Your task to perform on an android device: delete location history Image 0: 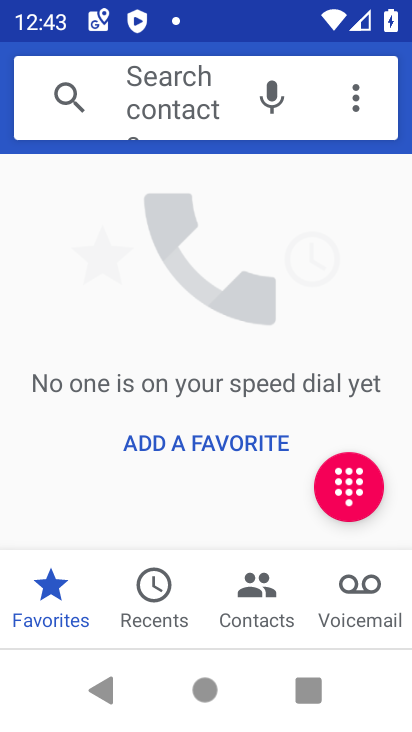
Step 0: press back button
Your task to perform on an android device: delete location history Image 1: 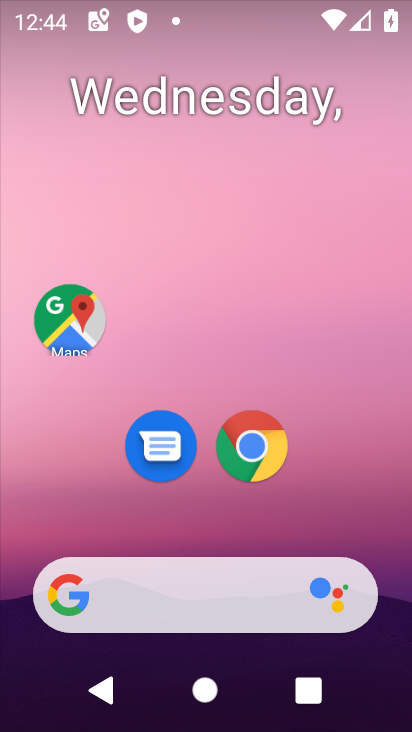
Step 1: drag from (373, 641) to (268, 208)
Your task to perform on an android device: delete location history Image 2: 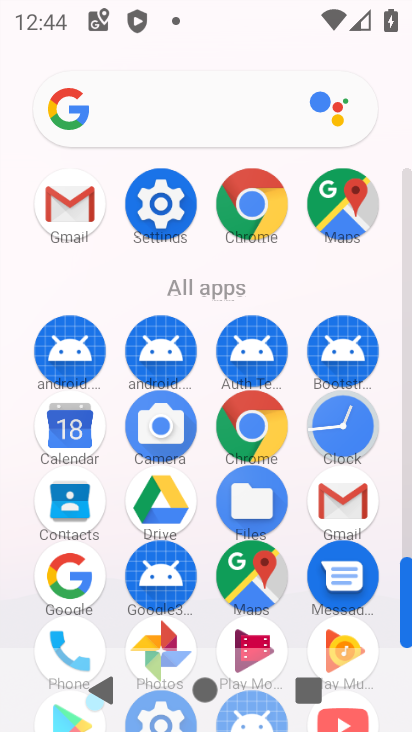
Step 2: click (259, 577)
Your task to perform on an android device: delete location history Image 3: 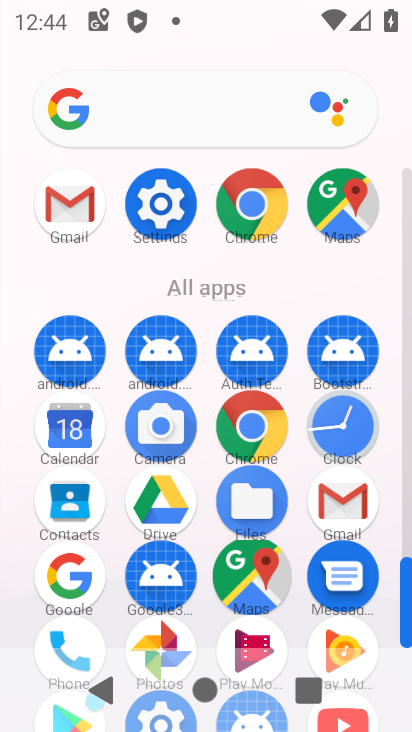
Step 3: click (257, 576)
Your task to perform on an android device: delete location history Image 4: 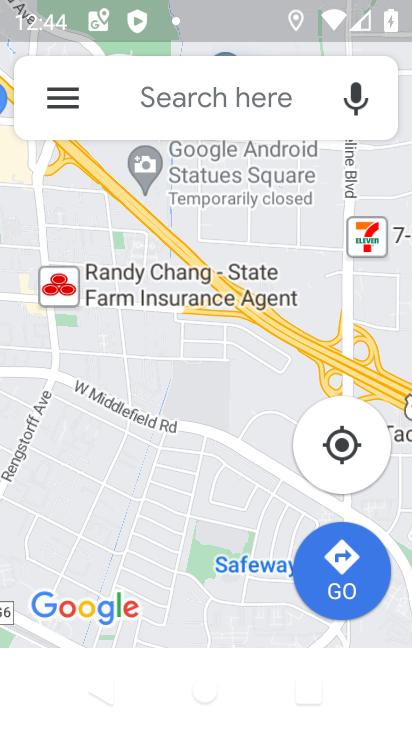
Step 4: click (147, 94)
Your task to perform on an android device: delete location history Image 5: 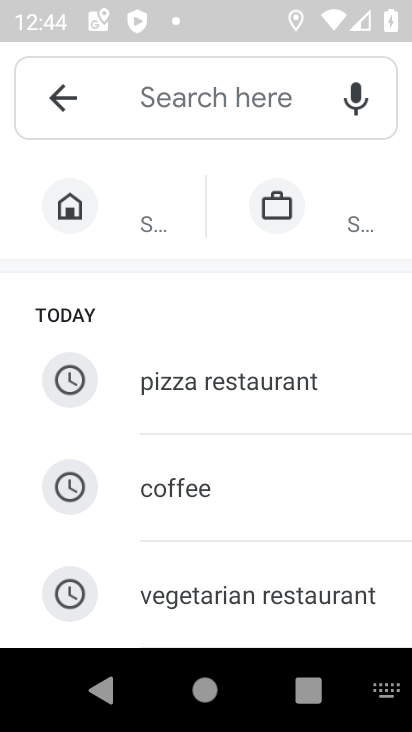
Step 5: click (70, 97)
Your task to perform on an android device: delete location history Image 6: 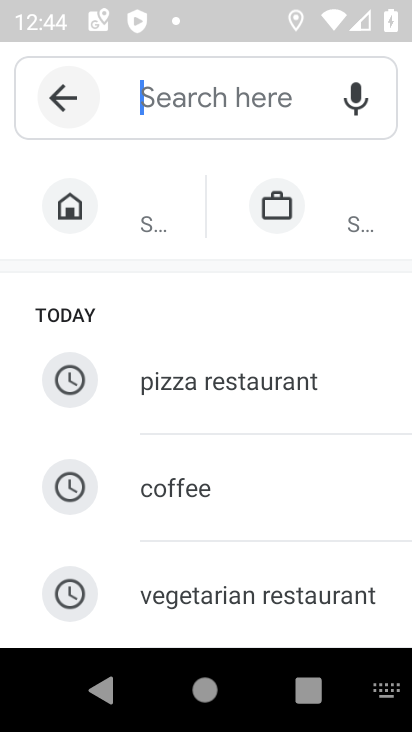
Step 6: click (71, 98)
Your task to perform on an android device: delete location history Image 7: 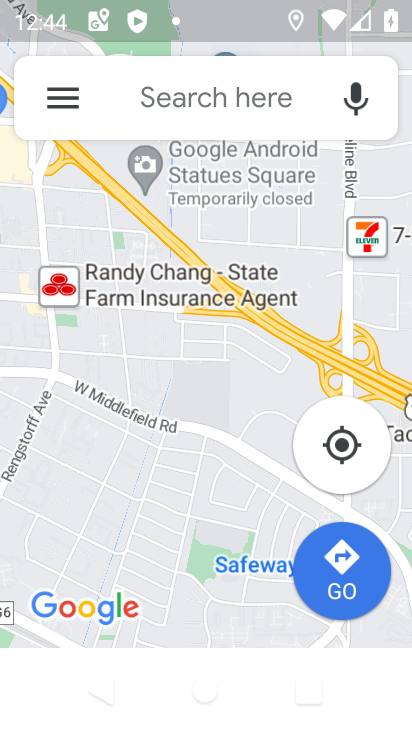
Step 7: click (71, 98)
Your task to perform on an android device: delete location history Image 8: 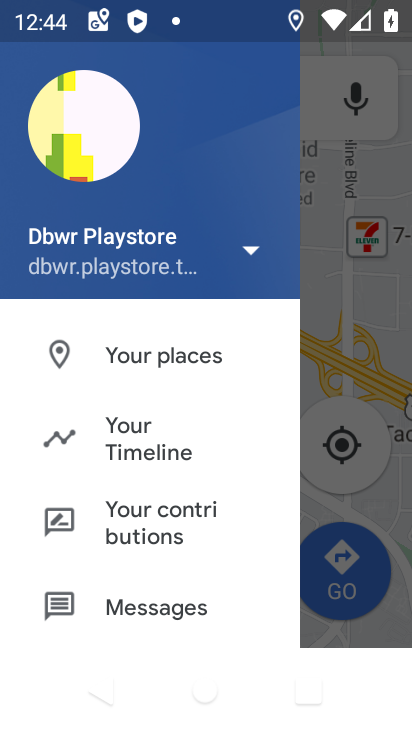
Step 8: click (133, 454)
Your task to perform on an android device: delete location history Image 9: 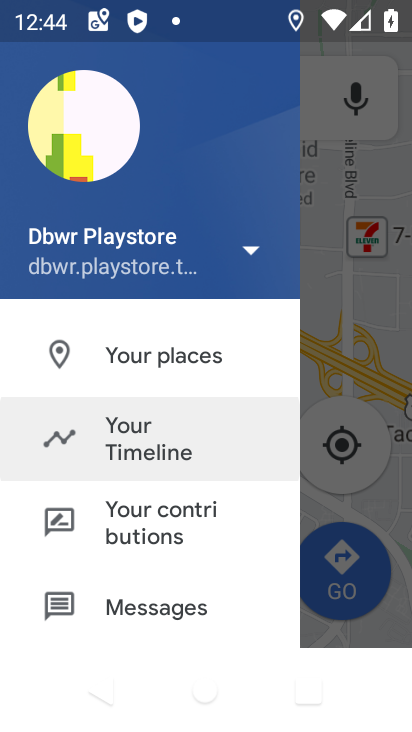
Step 9: click (131, 447)
Your task to perform on an android device: delete location history Image 10: 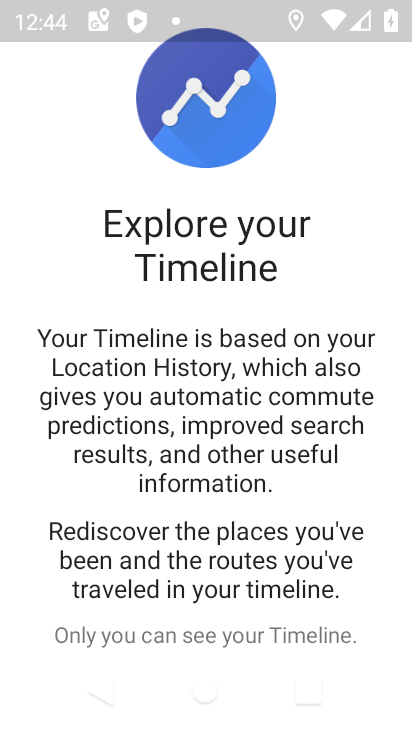
Step 10: drag from (233, 476) to (215, 190)
Your task to perform on an android device: delete location history Image 11: 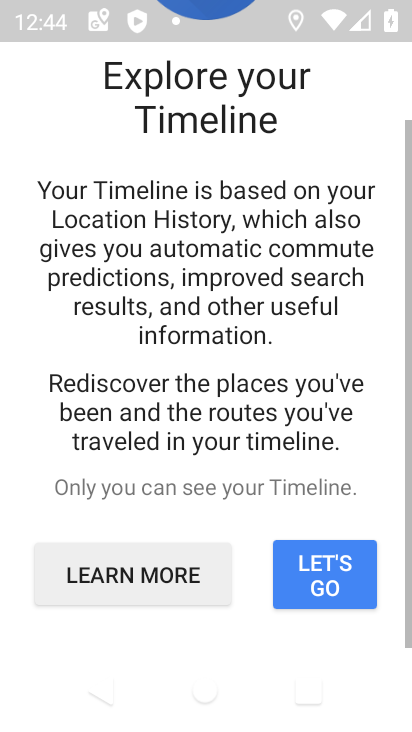
Step 11: drag from (264, 480) to (272, 160)
Your task to perform on an android device: delete location history Image 12: 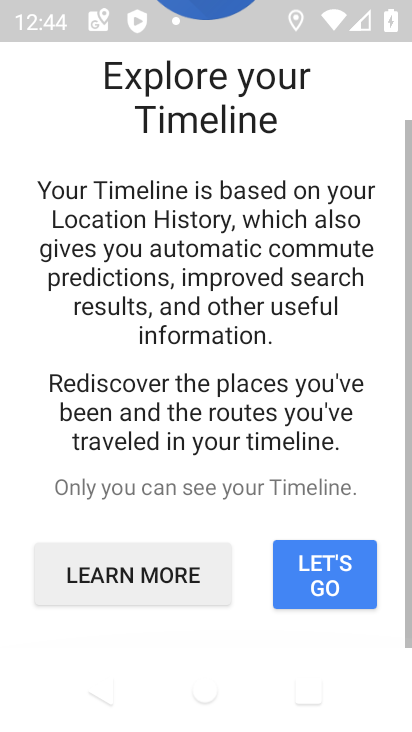
Step 12: drag from (305, 464) to (299, 270)
Your task to perform on an android device: delete location history Image 13: 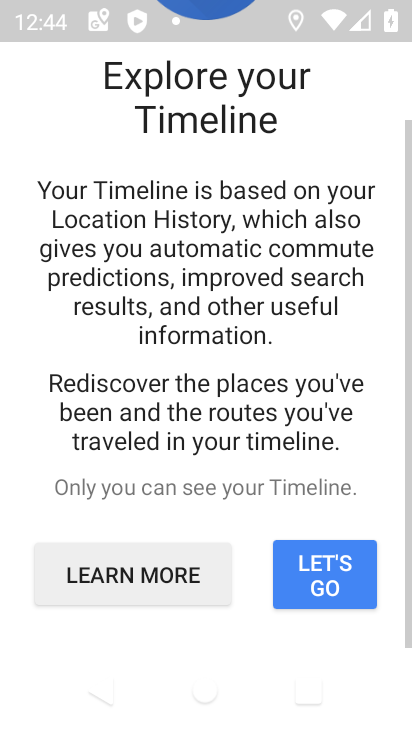
Step 13: click (325, 574)
Your task to perform on an android device: delete location history Image 14: 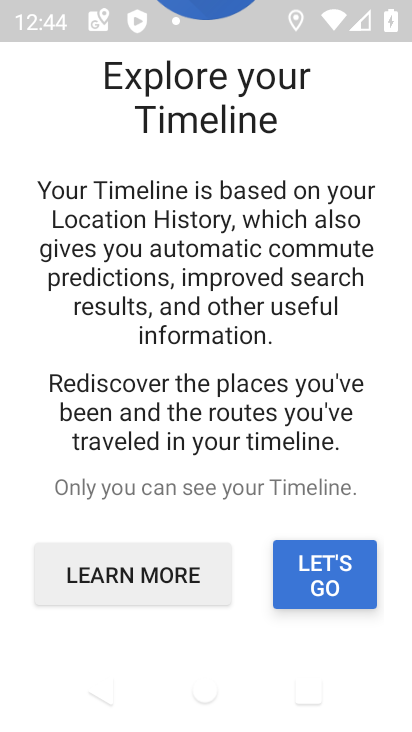
Step 14: click (326, 574)
Your task to perform on an android device: delete location history Image 15: 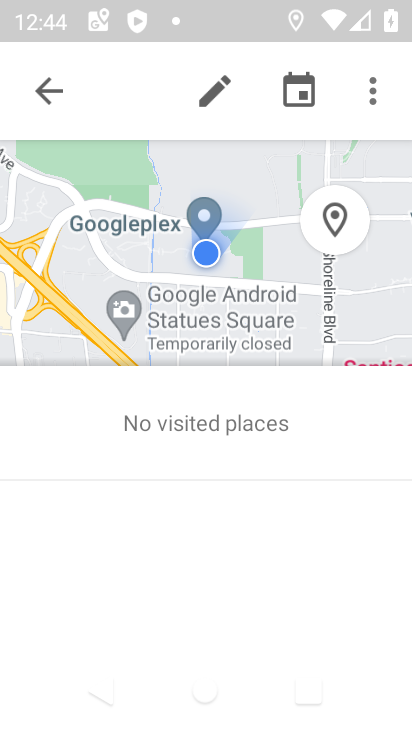
Step 15: click (376, 92)
Your task to perform on an android device: delete location history Image 16: 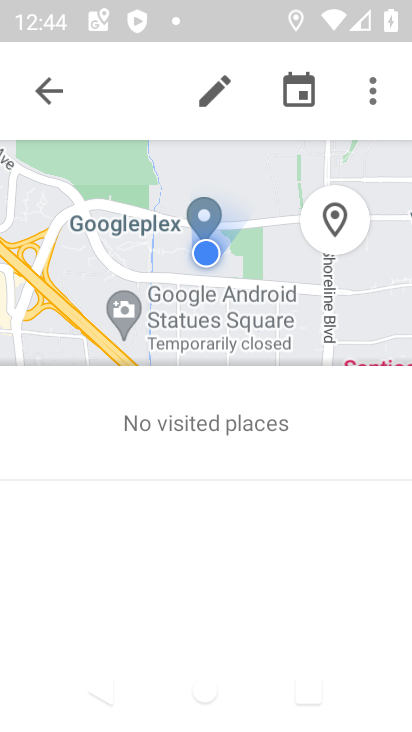
Step 16: click (376, 92)
Your task to perform on an android device: delete location history Image 17: 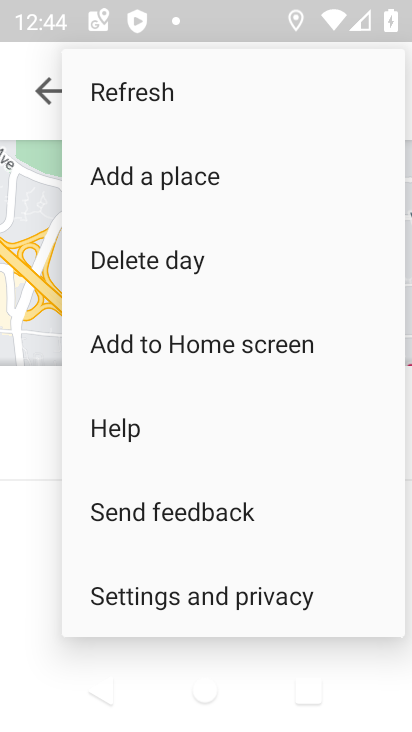
Step 17: click (193, 591)
Your task to perform on an android device: delete location history Image 18: 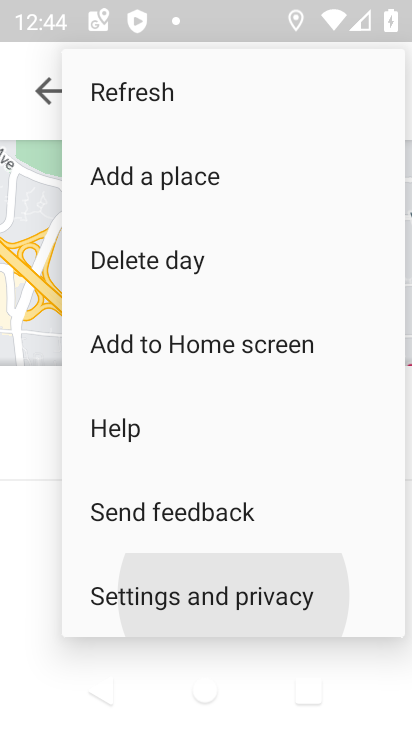
Step 18: click (193, 591)
Your task to perform on an android device: delete location history Image 19: 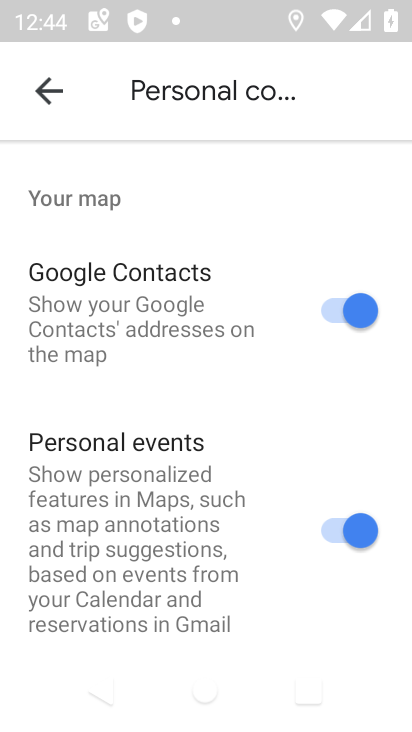
Step 19: drag from (178, 485) to (118, 180)
Your task to perform on an android device: delete location history Image 20: 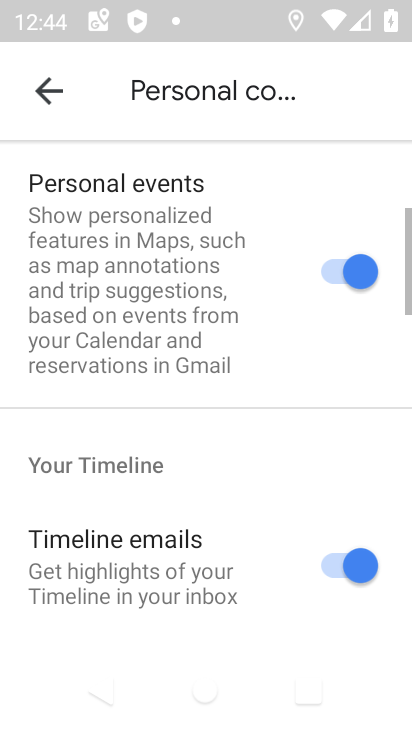
Step 20: drag from (175, 444) to (165, 141)
Your task to perform on an android device: delete location history Image 21: 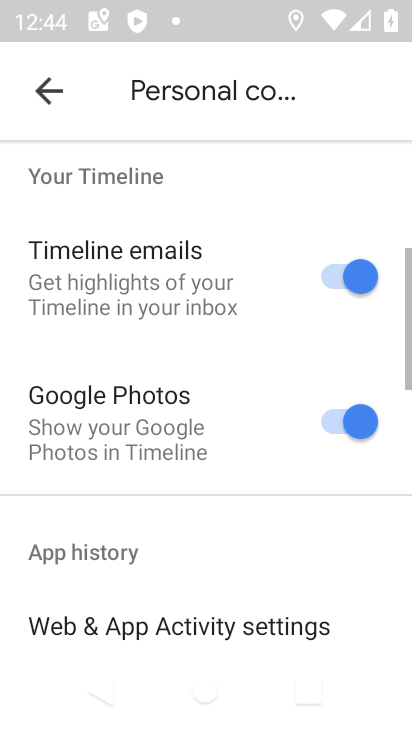
Step 21: drag from (228, 432) to (199, 79)
Your task to perform on an android device: delete location history Image 22: 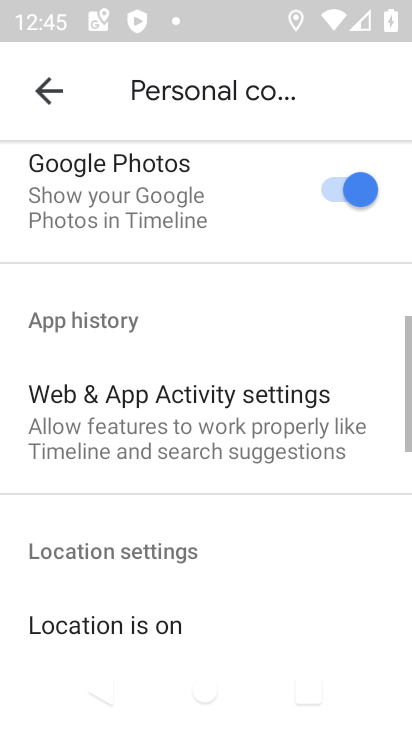
Step 22: drag from (205, 477) to (171, 104)
Your task to perform on an android device: delete location history Image 23: 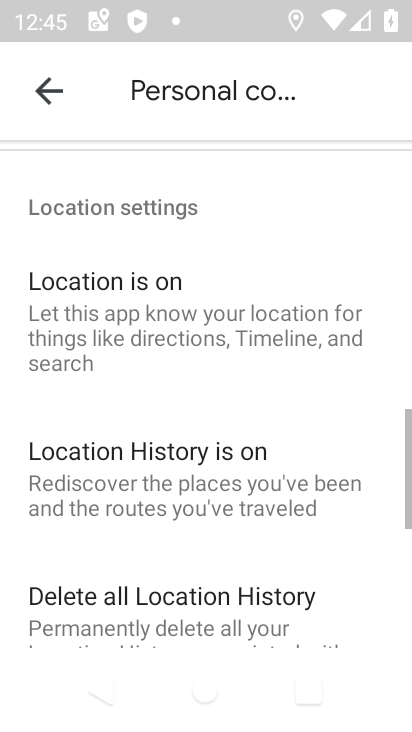
Step 23: drag from (193, 498) to (219, 132)
Your task to perform on an android device: delete location history Image 24: 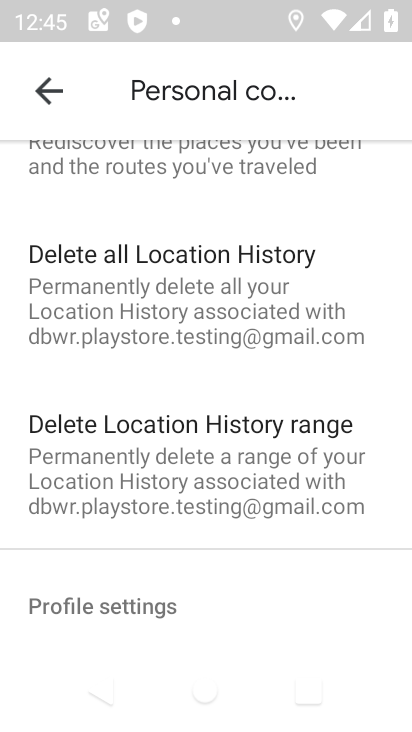
Step 24: drag from (181, 270) to (217, 520)
Your task to perform on an android device: delete location history Image 25: 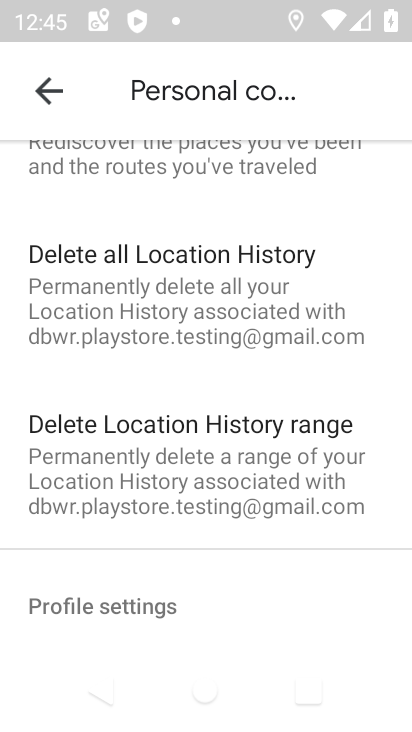
Step 25: drag from (175, 237) to (236, 517)
Your task to perform on an android device: delete location history Image 26: 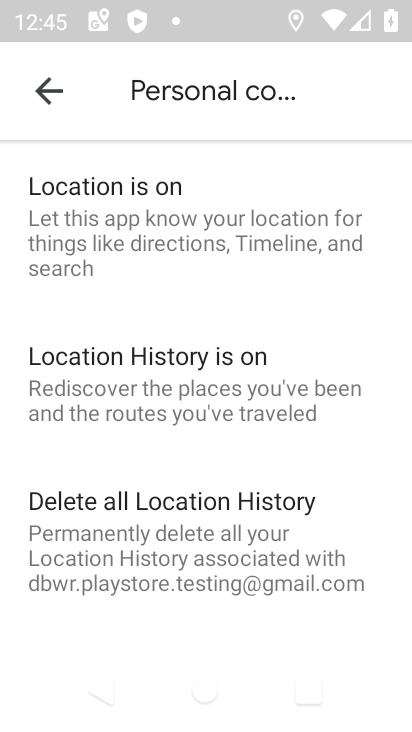
Step 26: click (181, 515)
Your task to perform on an android device: delete location history Image 27: 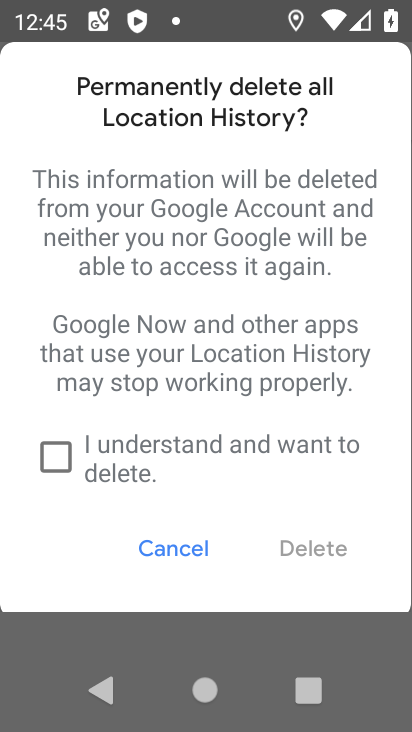
Step 27: click (58, 448)
Your task to perform on an android device: delete location history Image 28: 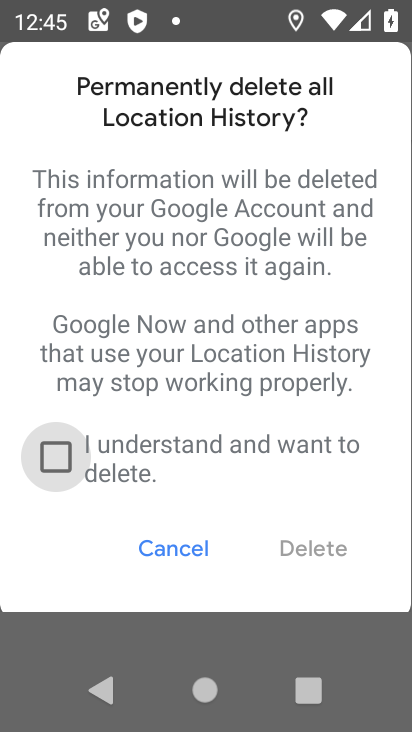
Step 28: click (58, 448)
Your task to perform on an android device: delete location history Image 29: 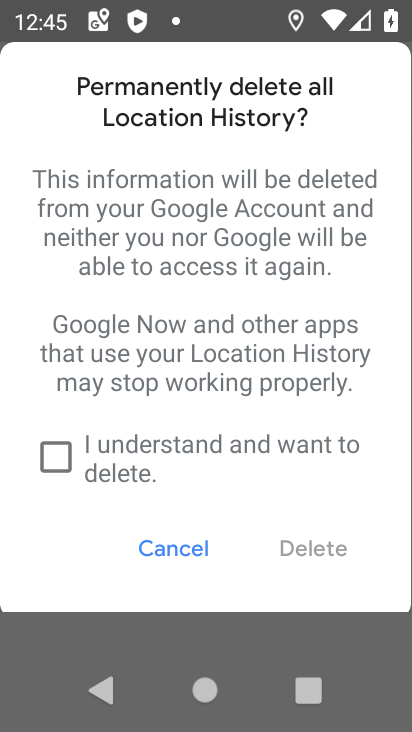
Step 29: click (324, 546)
Your task to perform on an android device: delete location history Image 30: 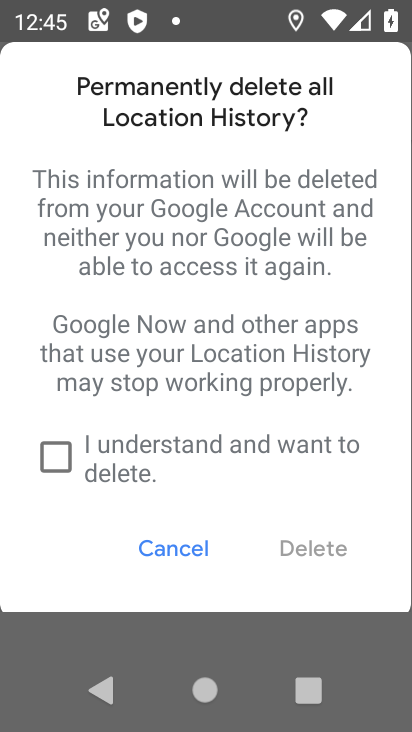
Step 30: click (65, 452)
Your task to perform on an android device: delete location history Image 31: 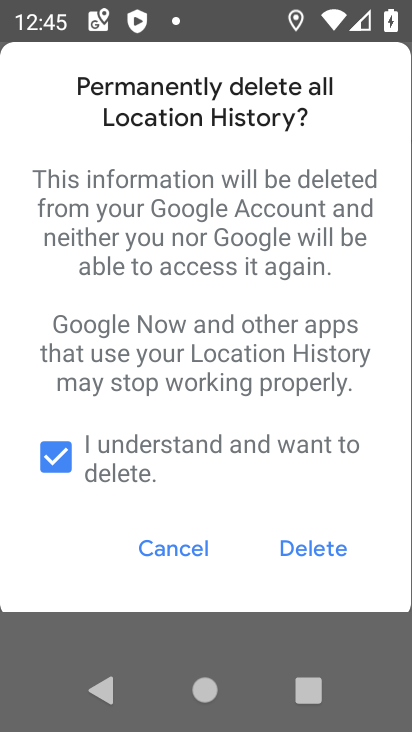
Step 31: click (316, 552)
Your task to perform on an android device: delete location history Image 32: 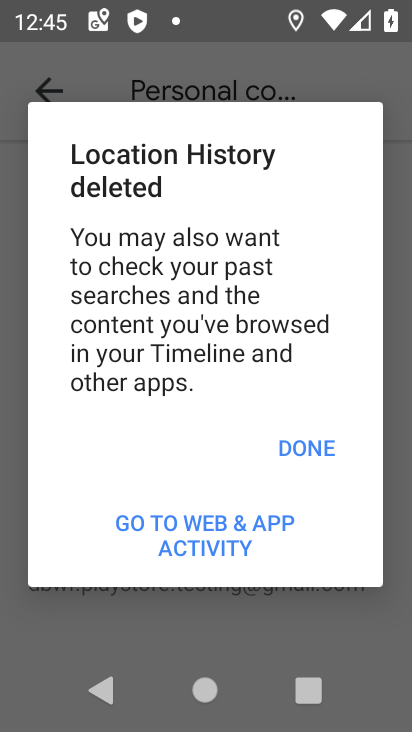
Step 32: task complete